Your task to perform on an android device: turn off javascript in the chrome app Image 0: 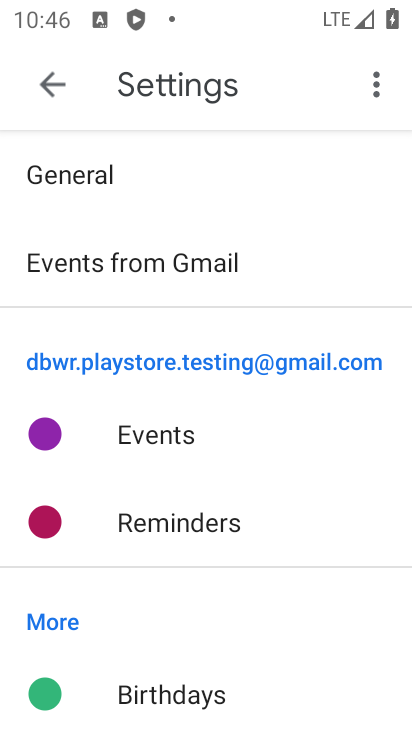
Step 0: press back button
Your task to perform on an android device: turn off javascript in the chrome app Image 1: 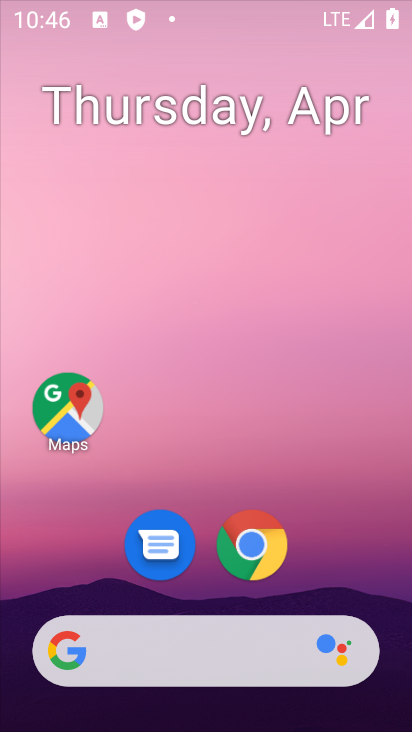
Step 1: drag from (28, 623) to (217, 249)
Your task to perform on an android device: turn off javascript in the chrome app Image 2: 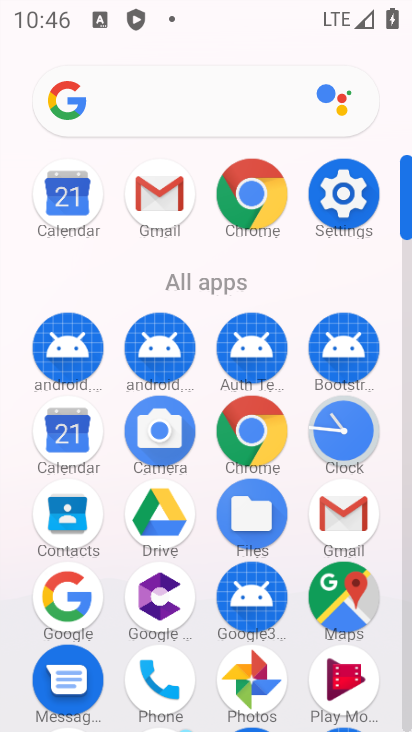
Step 2: click (247, 205)
Your task to perform on an android device: turn off javascript in the chrome app Image 3: 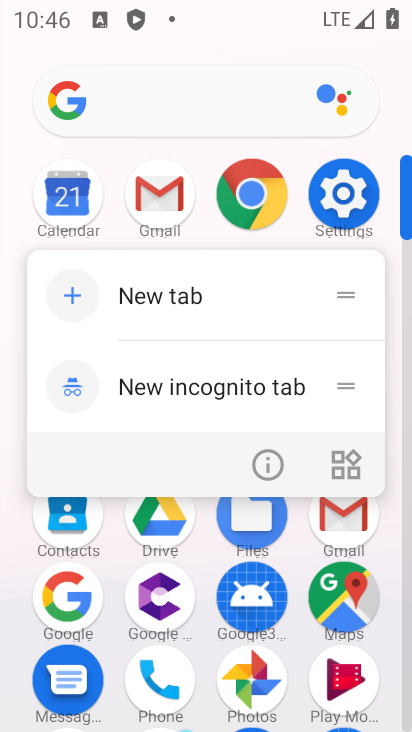
Step 3: click (275, 466)
Your task to perform on an android device: turn off javascript in the chrome app Image 4: 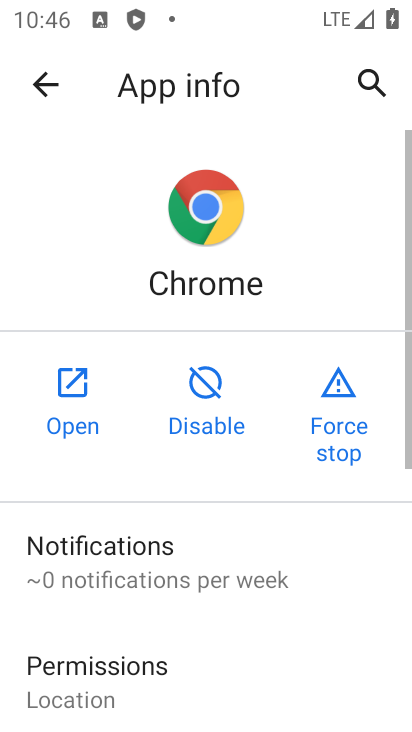
Step 4: click (78, 385)
Your task to perform on an android device: turn off javascript in the chrome app Image 5: 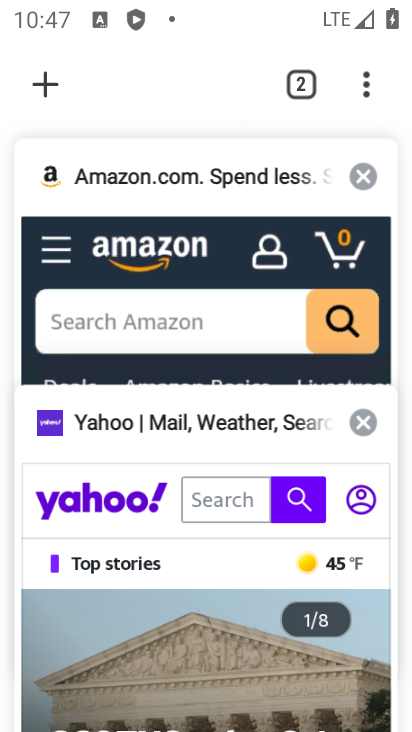
Step 5: click (371, 77)
Your task to perform on an android device: turn off javascript in the chrome app Image 6: 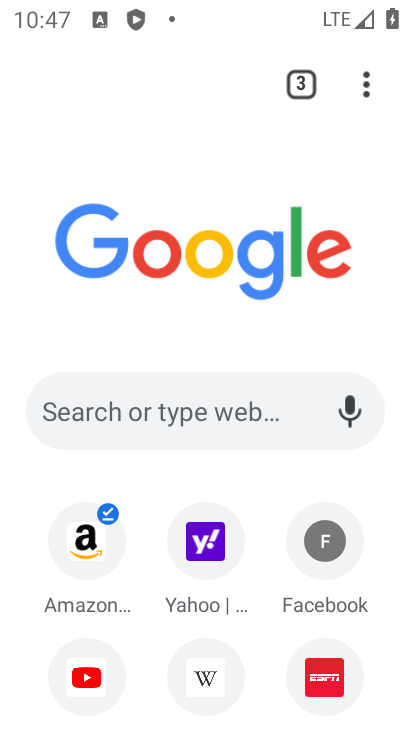
Step 6: click (371, 80)
Your task to perform on an android device: turn off javascript in the chrome app Image 7: 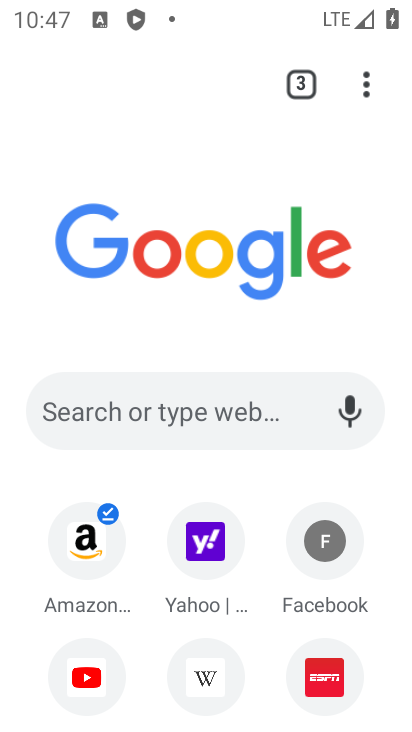
Step 7: click (371, 80)
Your task to perform on an android device: turn off javascript in the chrome app Image 8: 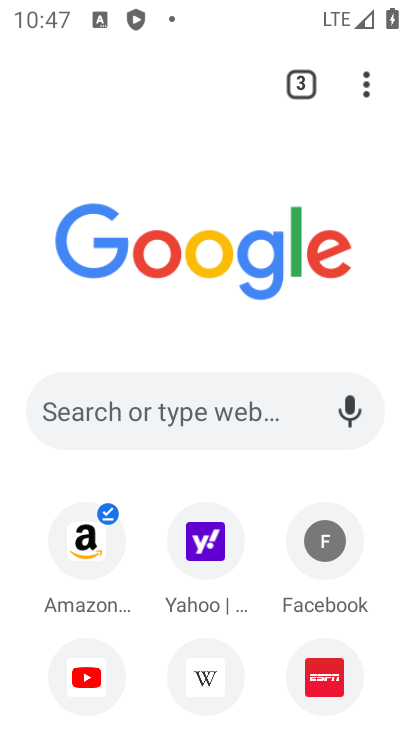
Step 8: click (367, 86)
Your task to perform on an android device: turn off javascript in the chrome app Image 9: 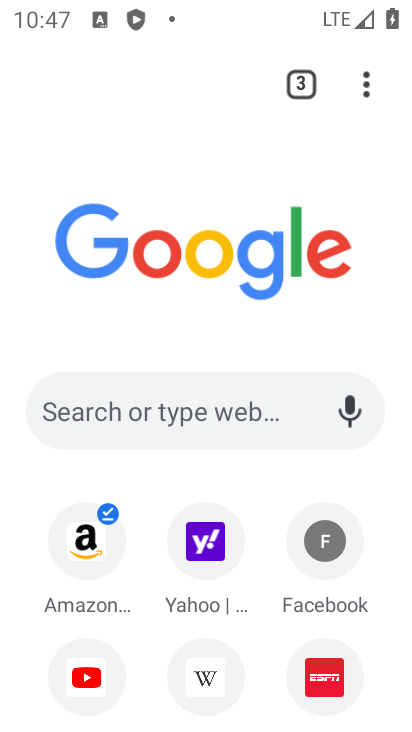
Step 9: drag from (135, 612) to (288, 185)
Your task to perform on an android device: turn off javascript in the chrome app Image 10: 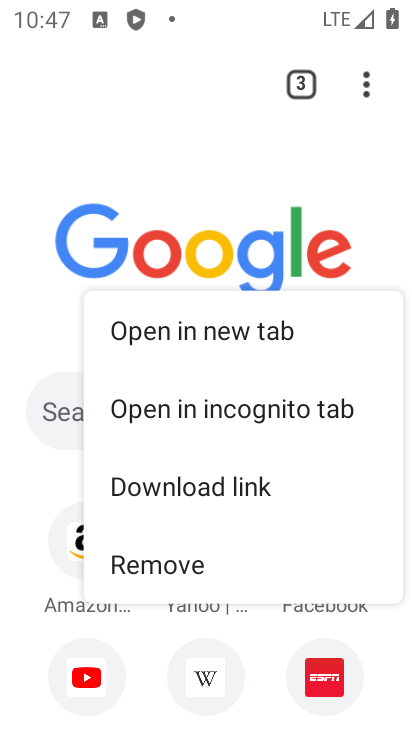
Step 10: click (367, 81)
Your task to perform on an android device: turn off javascript in the chrome app Image 11: 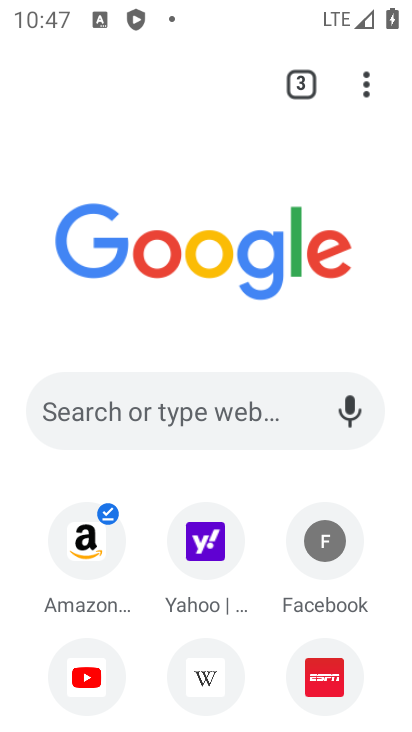
Step 11: click (367, 81)
Your task to perform on an android device: turn off javascript in the chrome app Image 12: 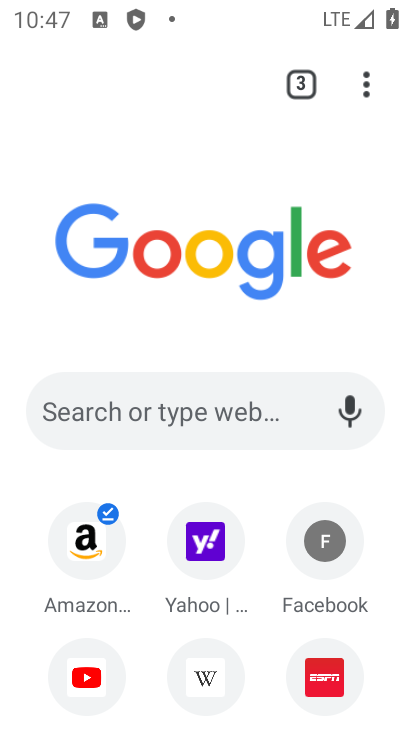
Step 12: click (356, 98)
Your task to perform on an android device: turn off javascript in the chrome app Image 13: 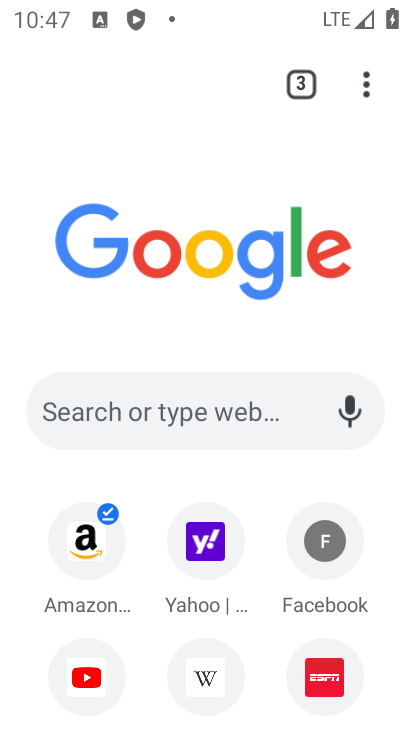
Step 13: click (368, 97)
Your task to perform on an android device: turn off javascript in the chrome app Image 14: 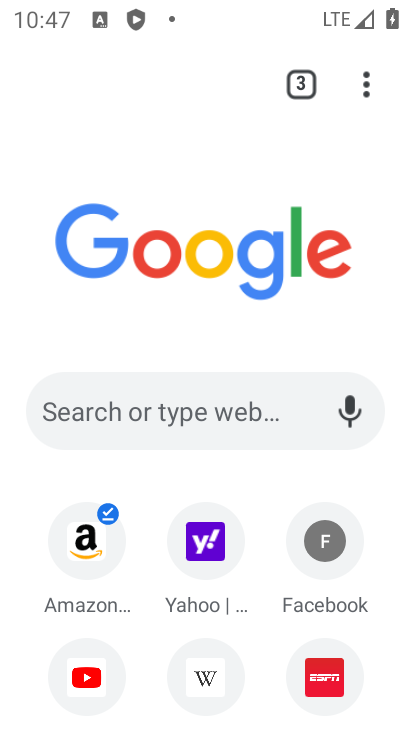
Step 14: click (368, 97)
Your task to perform on an android device: turn off javascript in the chrome app Image 15: 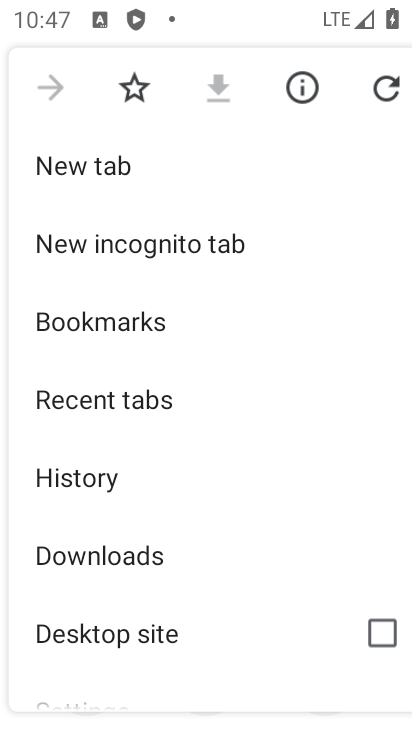
Step 15: drag from (172, 712) to (320, 205)
Your task to perform on an android device: turn off javascript in the chrome app Image 16: 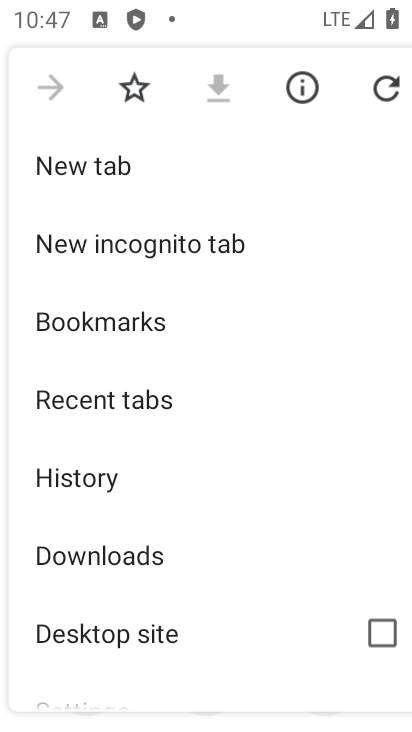
Step 16: drag from (30, 664) to (170, 280)
Your task to perform on an android device: turn off javascript in the chrome app Image 17: 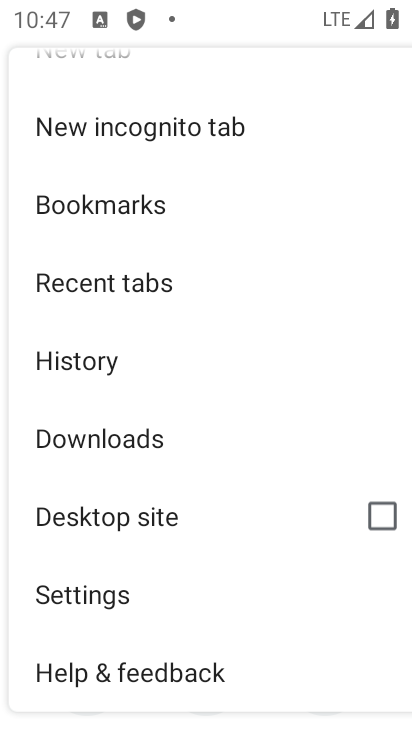
Step 17: click (132, 581)
Your task to perform on an android device: turn off javascript in the chrome app Image 18: 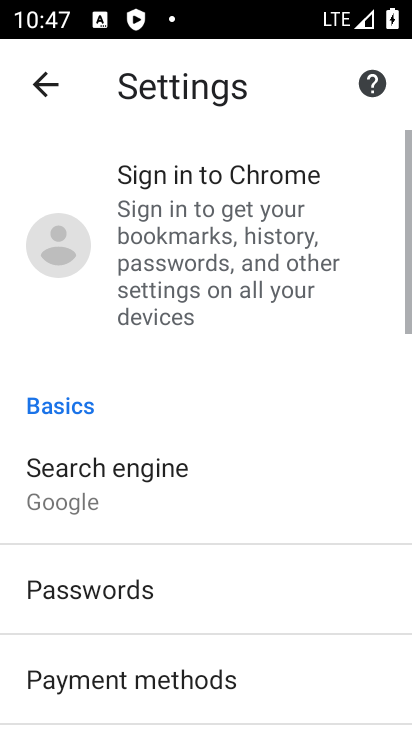
Step 18: drag from (116, 613) to (202, 293)
Your task to perform on an android device: turn off javascript in the chrome app Image 19: 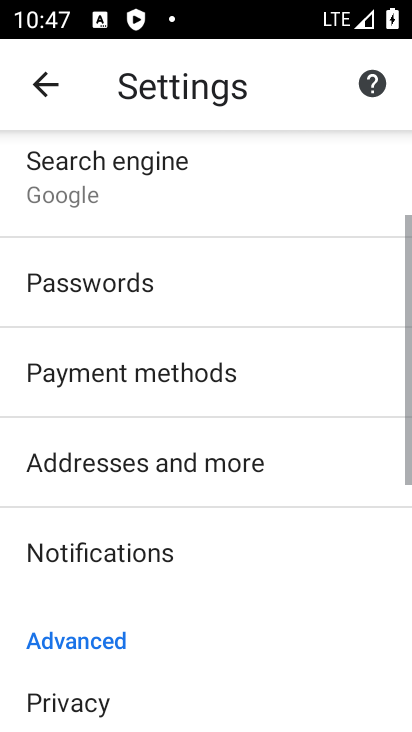
Step 19: drag from (240, 690) to (404, 266)
Your task to perform on an android device: turn off javascript in the chrome app Image 20: 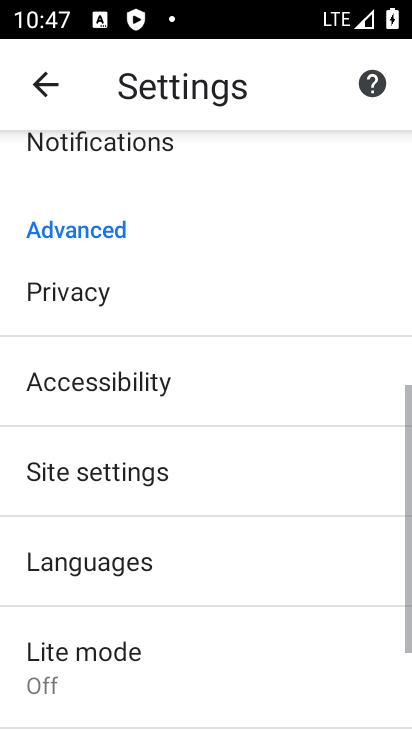
Step 20: click (126, 474)
Your task to perform on an android device: turn off javascript in the chrome app Image 21: 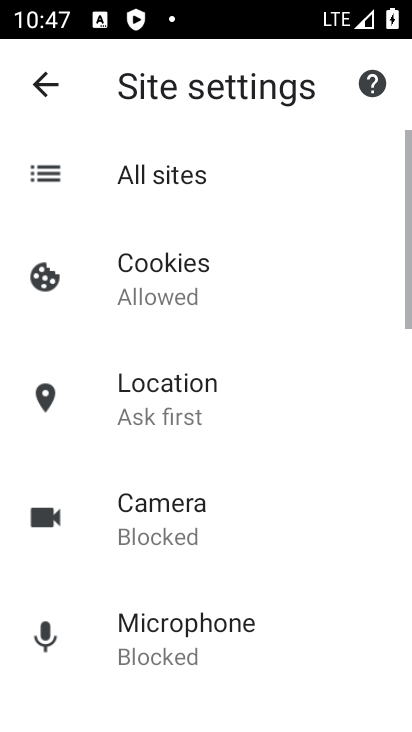
Step 21: drag from (174, 667) to (331, 276)
Your task to perform on an android device: turn off javascript in the chrome app Image 22: 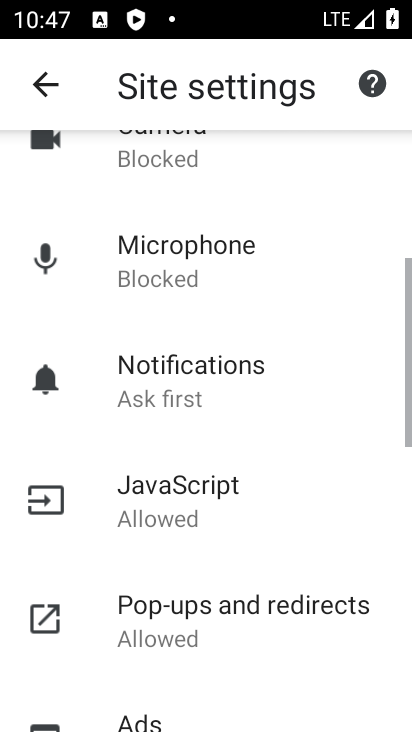
Step 22: drag from (150, 631) to (360, 291)
Your task to perform on an android device: turn off javascript in the chrome app Image 23: 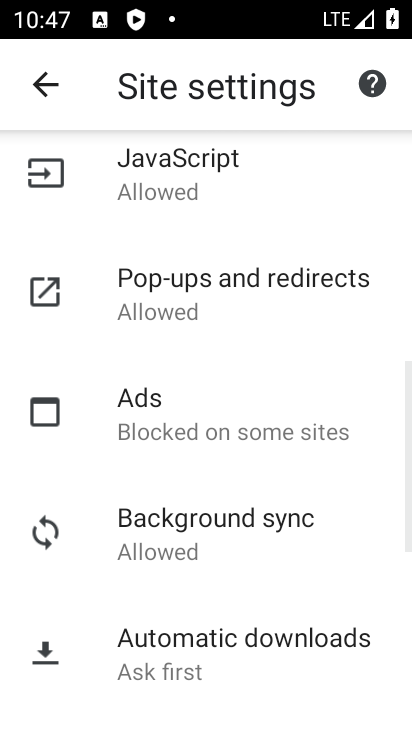
Step 23: click (263, 186)
Your task to perform on an android device: turn off javascript in the chrome app Image 24: 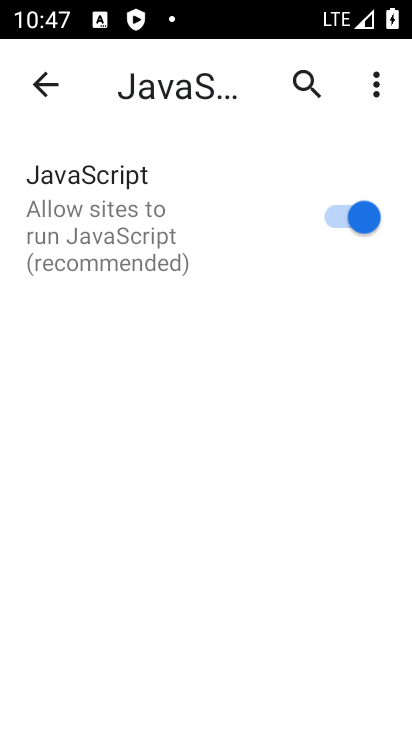
Step 24: click (368, 211)
Your task to perform on an android device: turn off javascript in the chrome app Image 25: 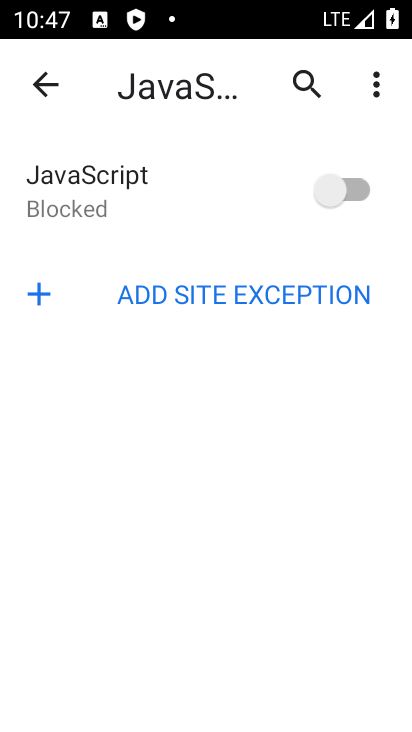
Step 25: task complete